Your task to perform on an android device: manage bookmarks in the chrome app Image 0: 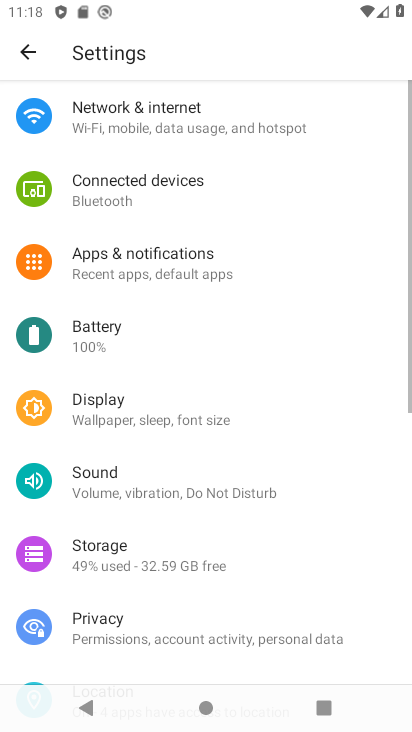
Step 0: press home button
Your task to perform on an android device: manage bookmarks in the chrome app Image 1: 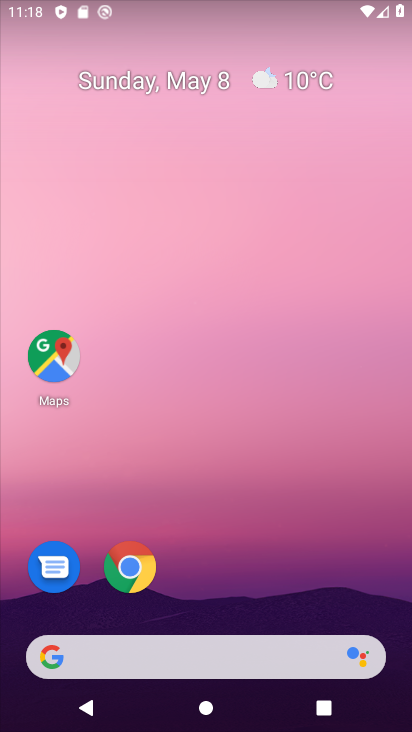
Step 1: drag from (177, 639) to (218, 301)
Your task to perform on an android device: manage bookmarks in the chrome app Image 2: 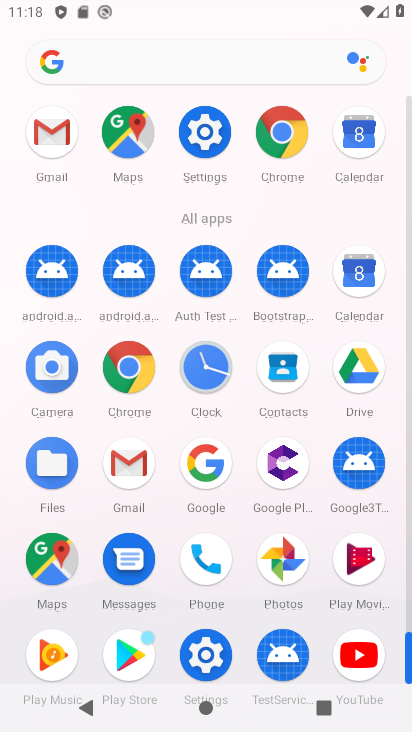
Step 2: click (134, 368)
Your task to perform on an android device: manage bookmarks in the chrome app Image 3: 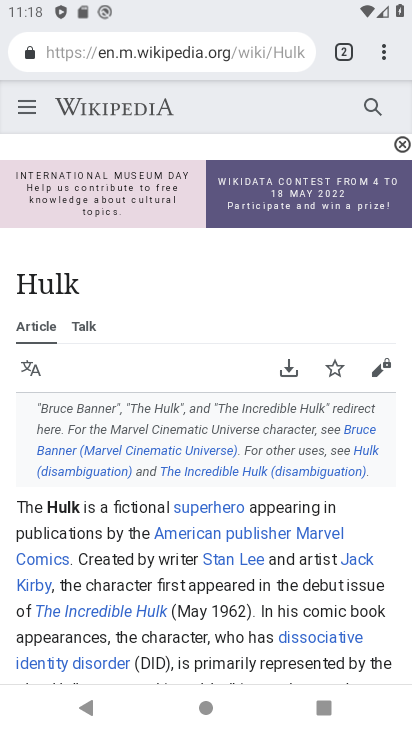
Step 3: click (206, 52)
Your task to perform on an android device: manage bookmarks in the chrome app Image 4: 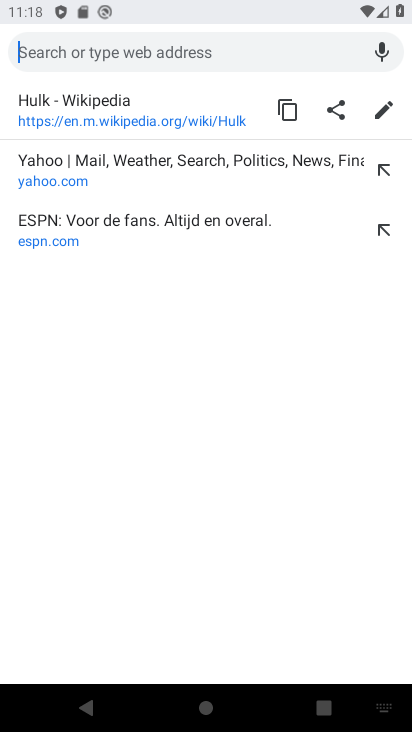
Step 4: type "hungari"
Your task to perform on an android device: manage bookmarks in the chrome app Image 5: 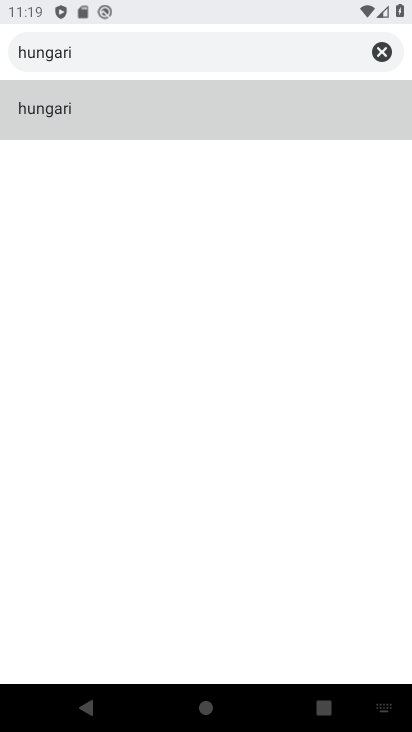
Step 5: click (100, 108)
Your task to perform on an android device: manage bookmarks in the chrome app Image 6: 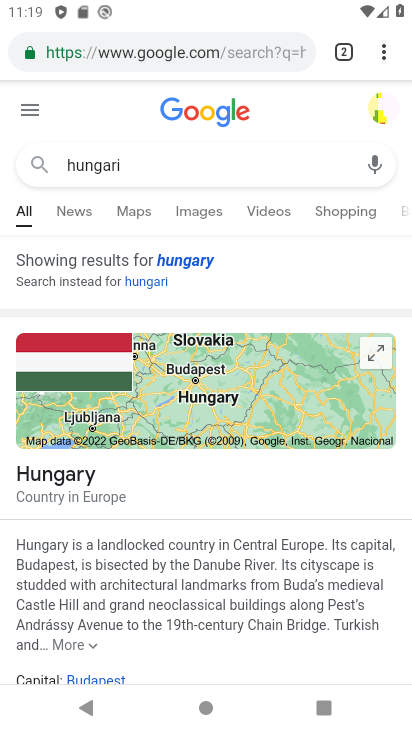
Step 6: drag from (247, 529) to (227, 132)
Your task to perform on an android device: manage bookmarks in the chrome app Image 7: 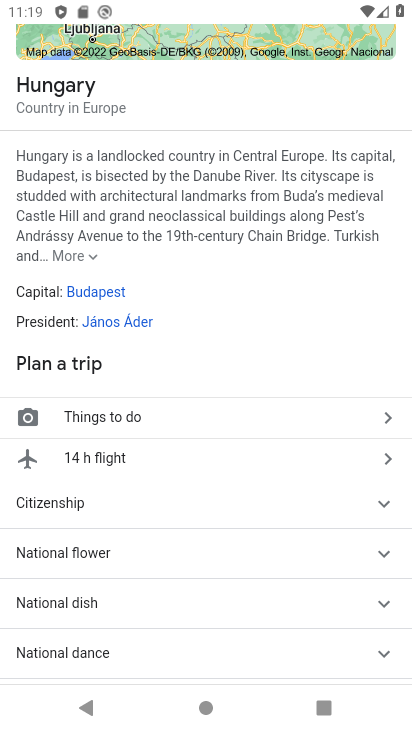
Step 7: drag from (204, 477) to (210, 199)
Your task to perform on an android device: manage bookmarks in the chrome app Image 8: 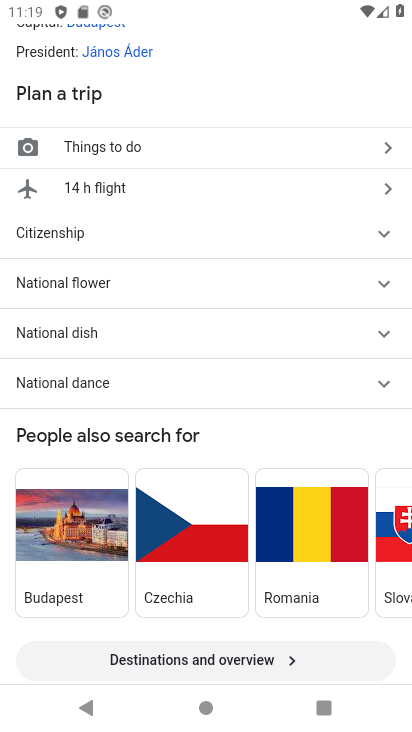
Step 8: drag from (235, 484) to (226, 131)
Your task to perform on an android device: manage bookmarks in the chrome app Image 9: 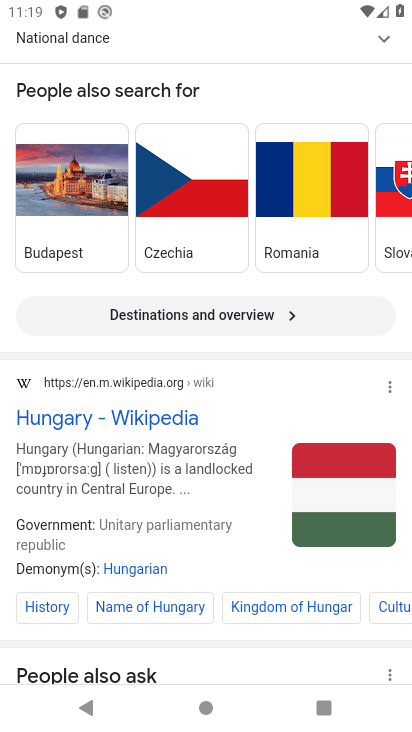
Step 9: click (169, 409)
Your task to perform on an android device: manage bookmarks in the chrome app Image 10: 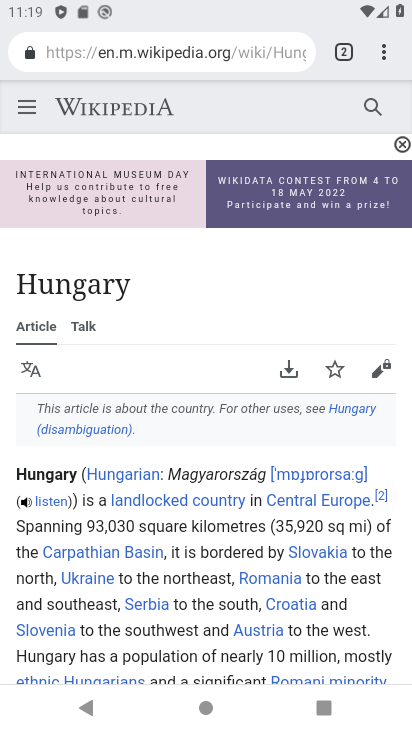
Step 10: click (386, 53)
Your task to perform on an android device: manage bookmarks in the chrome app Image 11: 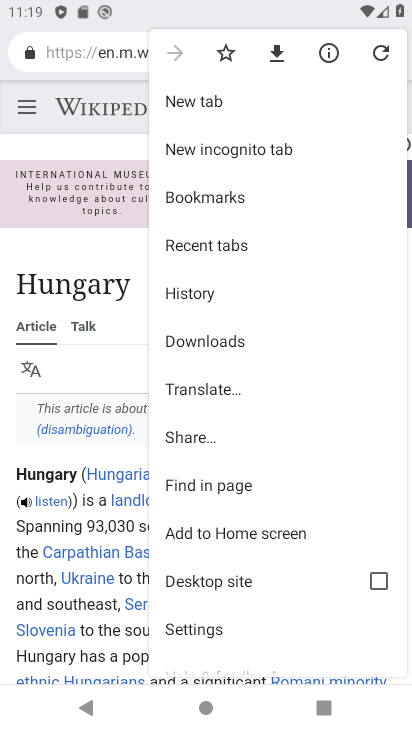
Step 11: click (221, 52)
Your task to perform on an android device: manage bookmarks in the chrome app Image 12: 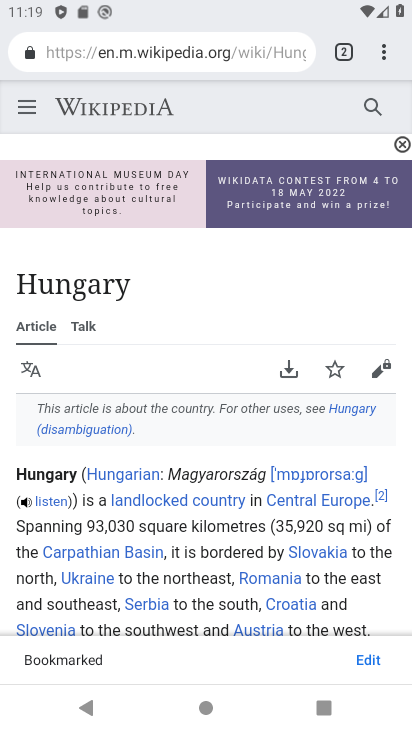
Step 12: task complete